Your task to perform on an android device: Open calendar and show me the second week of next month Image 0: 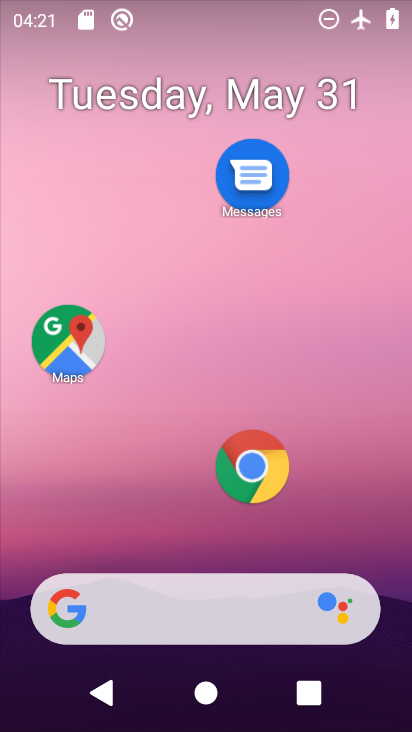
Step 0: drag from (157, 466) to (186, 55)
Your task to perform on an android device: Open calendar and show me the second week of next month Image 1: 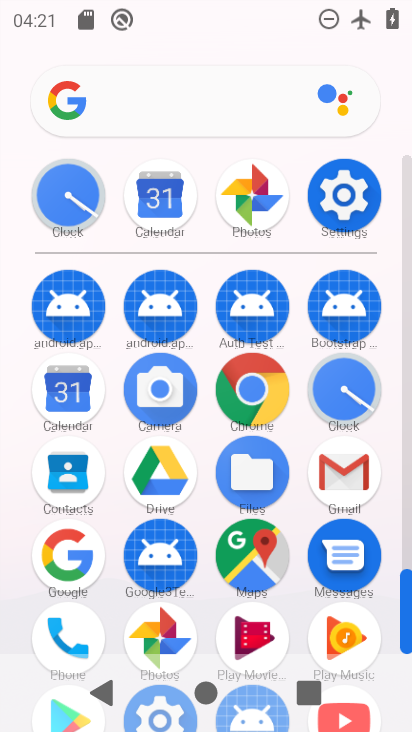
Step 1: click (76, 387)
Your task to perform on an android device: Open calendar and show me the second week of next month Image 2: 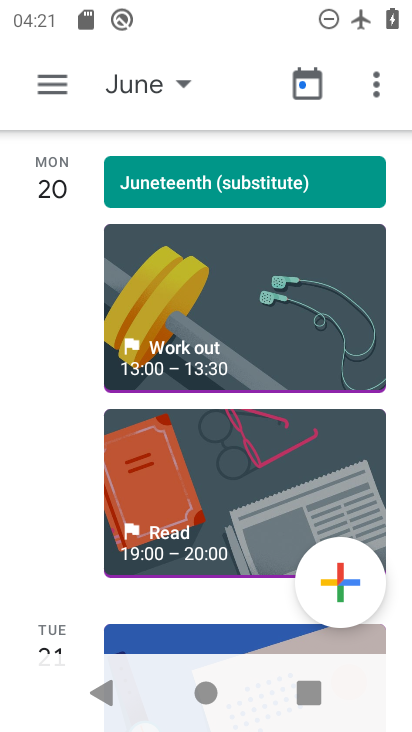
Step 2: click (166, 82)
Your task to perform on an android device: Open calendar and show me the second week of next month Image 3: 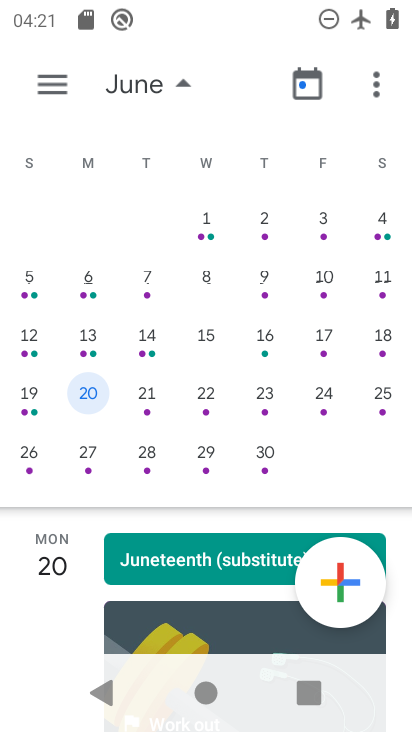
Step 3: click (87, 272)
Your task to perform on an android device: Open calendar and show me the second week of next month Image 4: 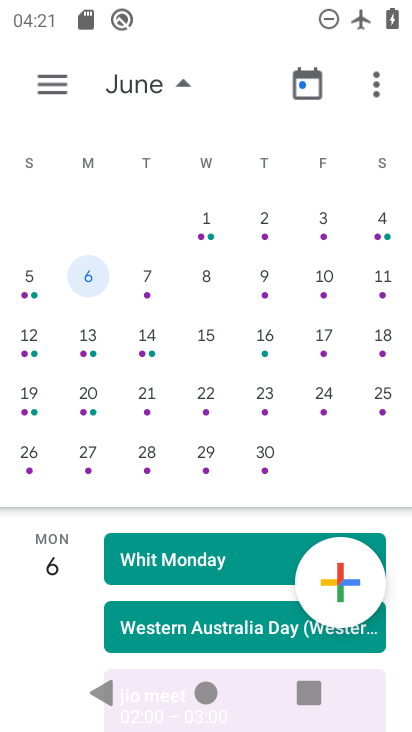
Step 4: task complete